Your task to perform on an android device: turn on priority inbox in the gmail app Image 0: 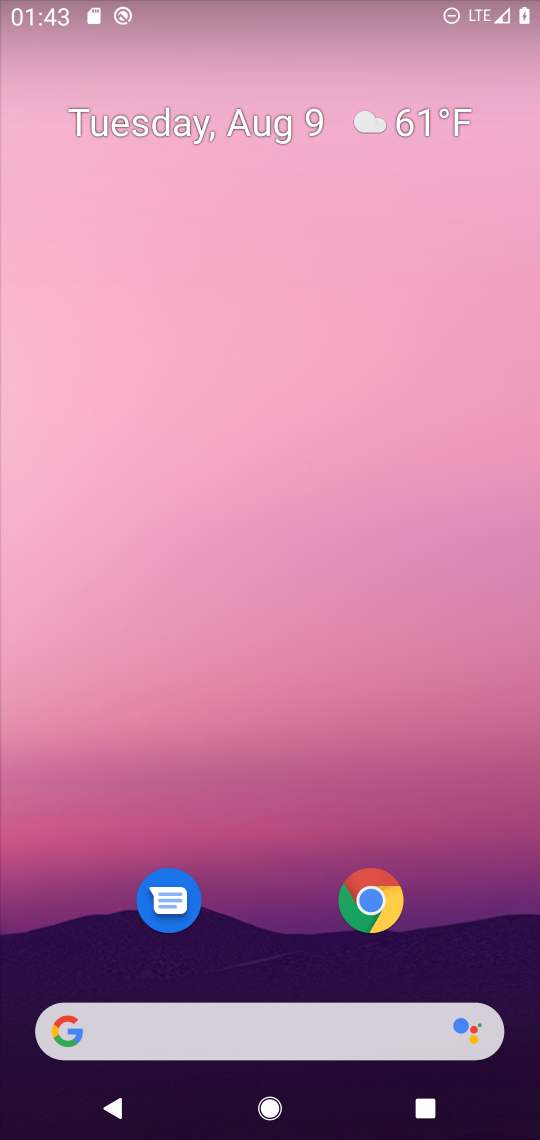
Step 0: press home button
Your task to perform on an android device: turn on priority inbox in the gmail app Image 1: 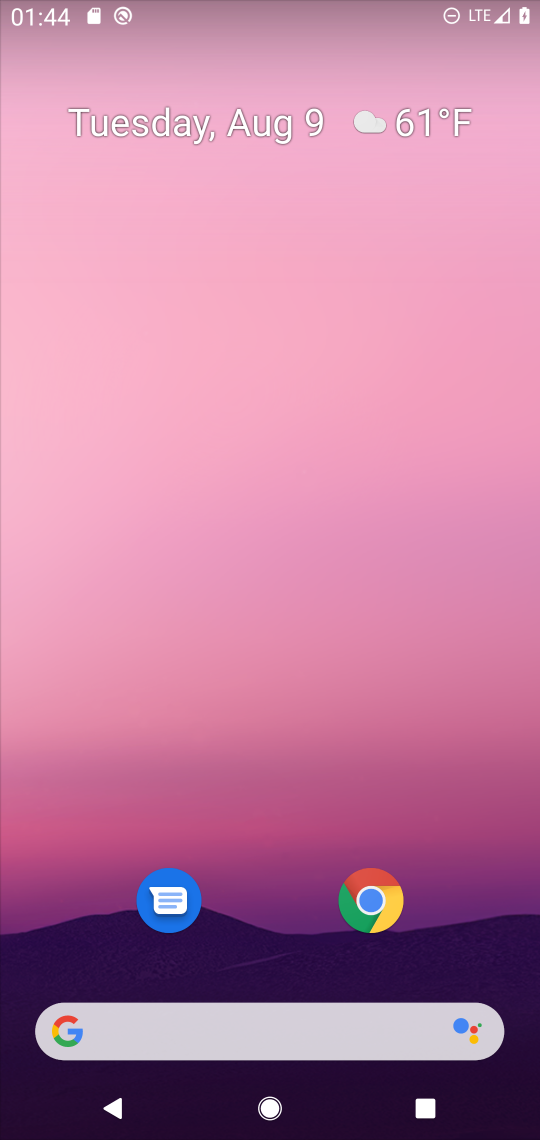
Step 1: drag from (235, 942) to (316, 117)
Your task to perform on an android device: turn on priority inbox in the gmail app Image 2: 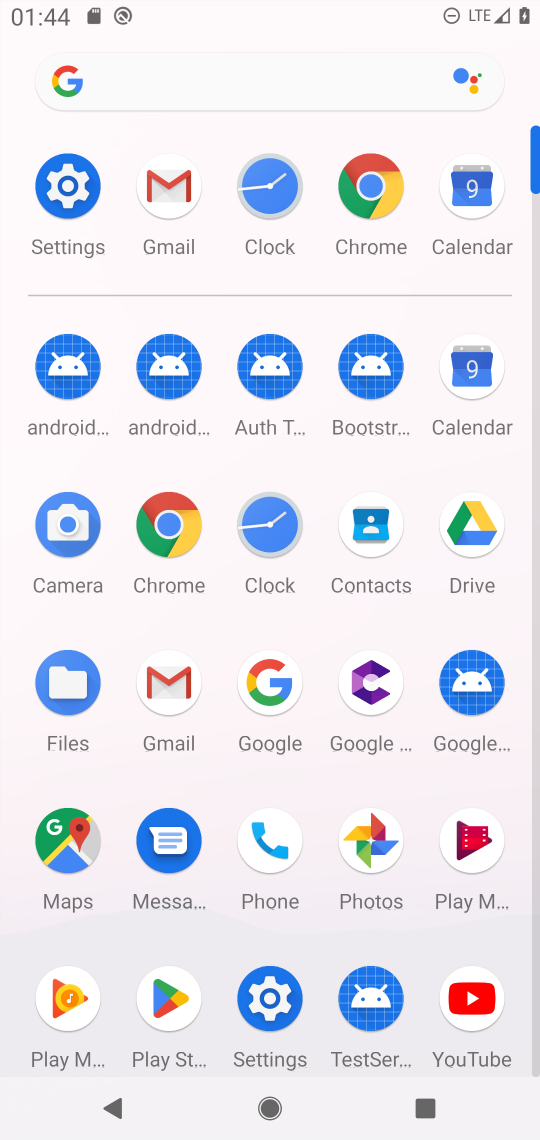
Step 2: click (59, 185)
Your task to perform on an android device: turn on priority inbox in the gmail app Image 3: 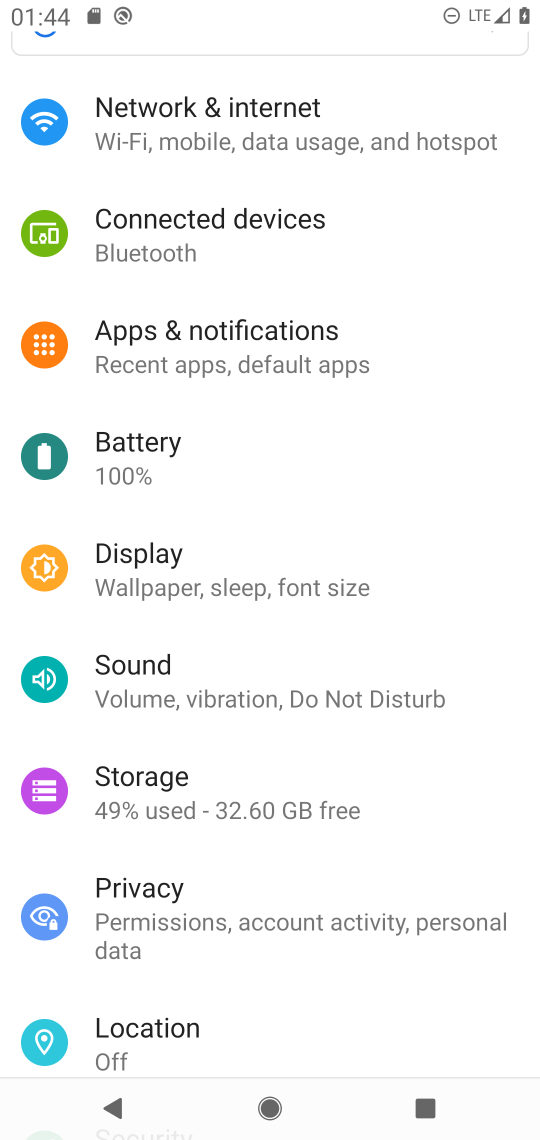
Step 3: drag from (461, 245) to (453, 481)
Your task to perform on an android device: turn on priority inbox in the gmail app Image 4: 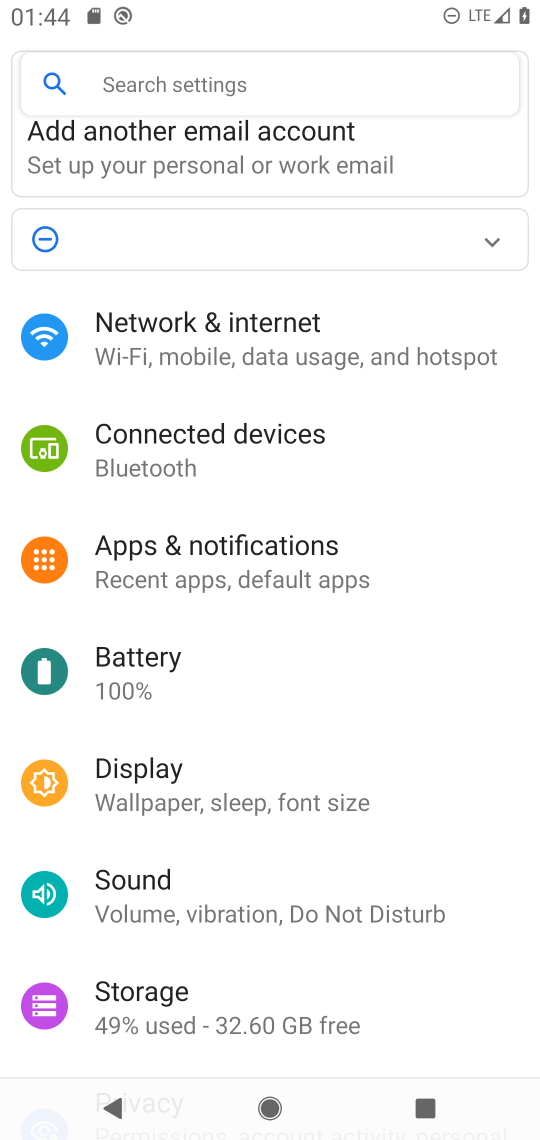
Step 4: drag from (410, 818) to (449, 442)
Your task to perform on an android device: turn on priority inbox in the gmail app Image 5: 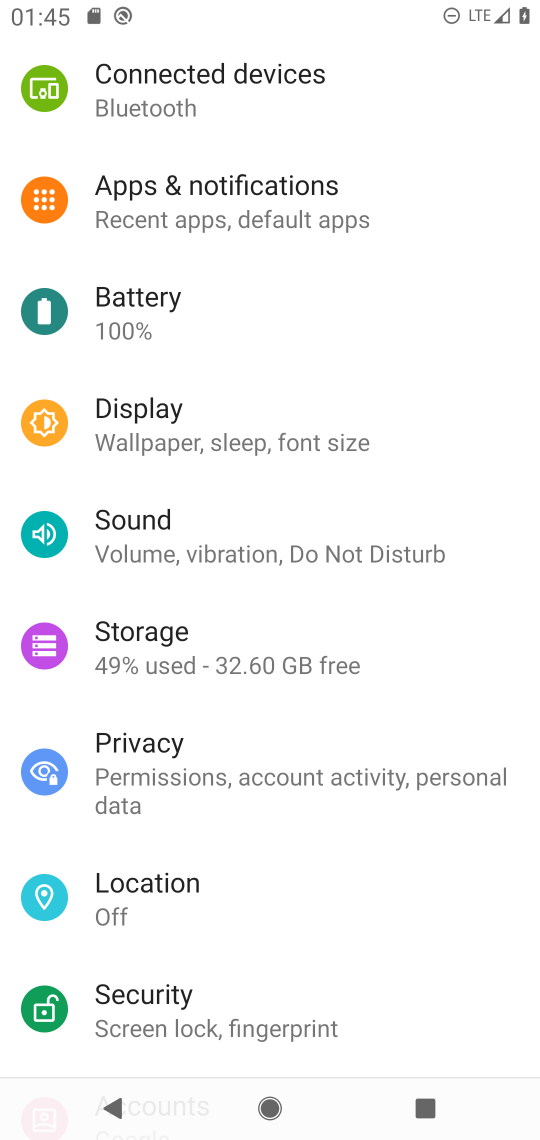
Step 5: drag from (447, 249) to (429, 613)
Your task to perform on an android device: turn on priority inbox in the gmail app Image 6: 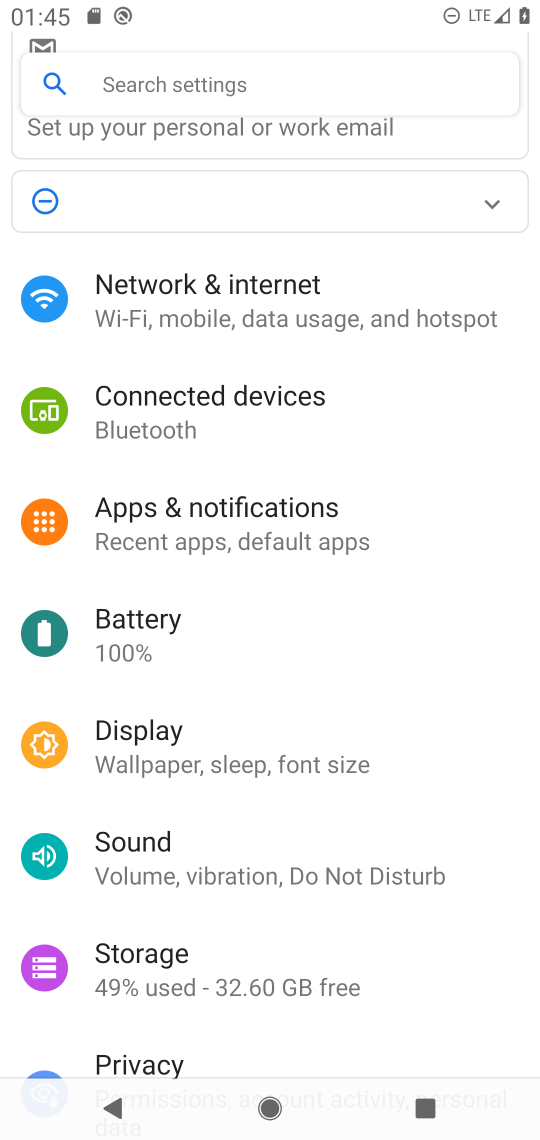
Step 6: drag from (445, 388) to (422, 641)
Your task to perform on an android device: turn on priority inbox in the gmail app Image 7: 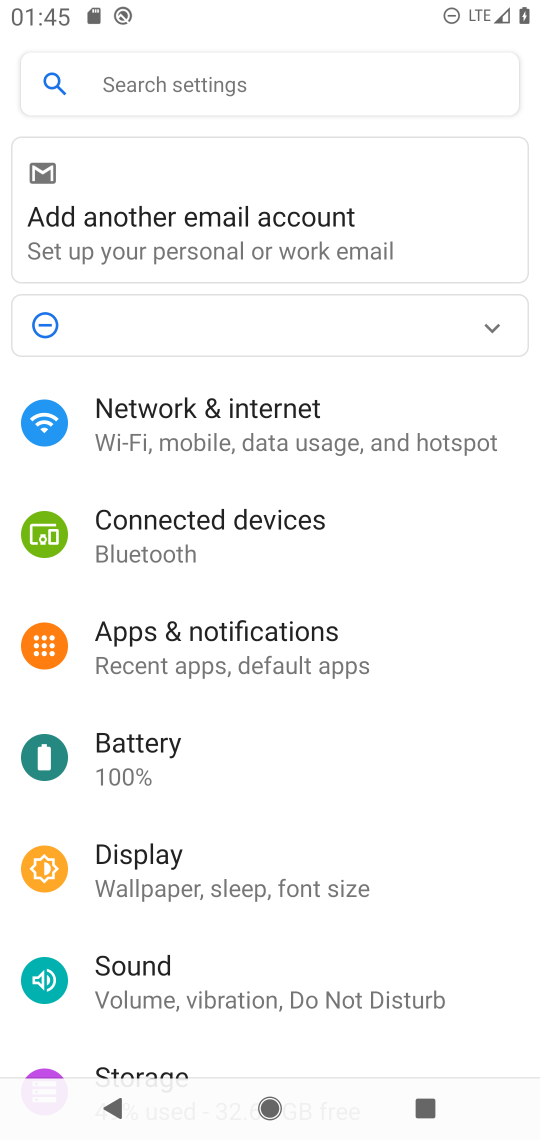
Step 7: drag from (442, 814) to (463, 600)
Your task to perform on an android device: turn on priority inbox in the gmail app Image 8: 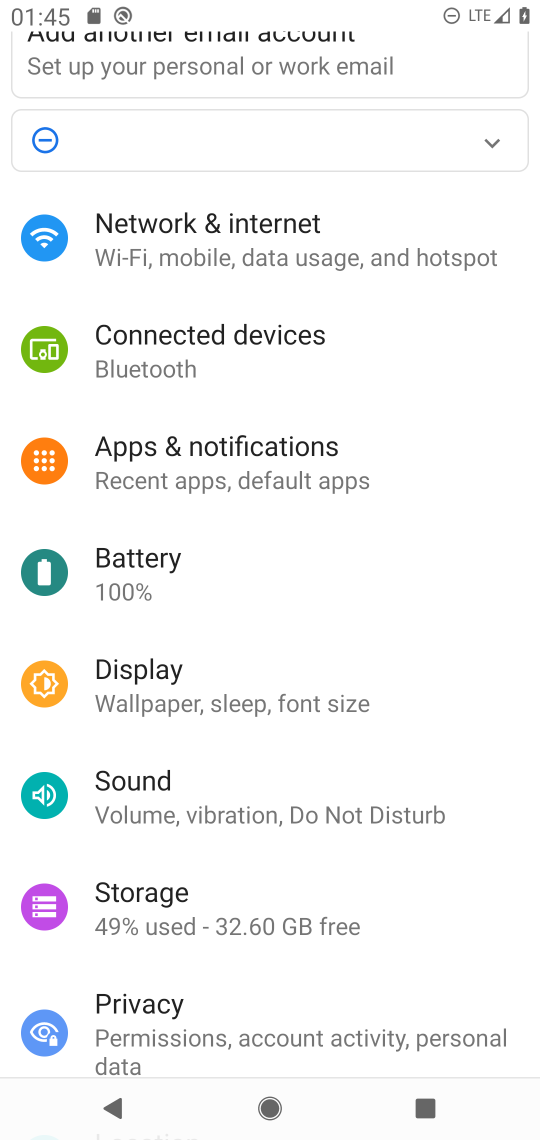
Step 8: drag from (462, 731) to (464, 637)
Your task to perform on an android device: turn on priority inbox in the gmail app Image 9: 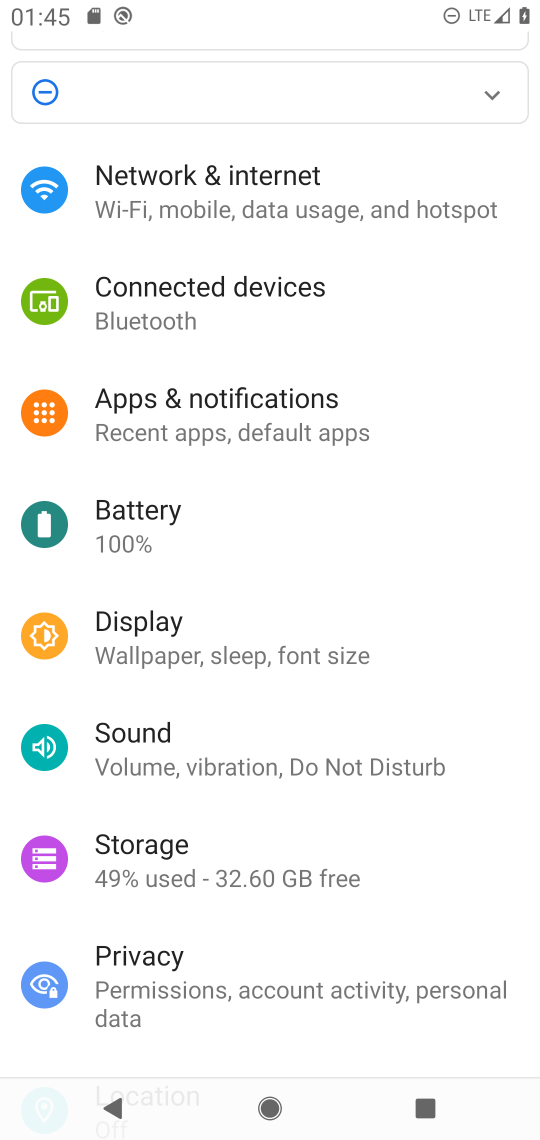
Step 9: drag from (427, 831) to (456, 426)
Your task to perform on an android device: turn on priority inbox in the gmail app Image 10: 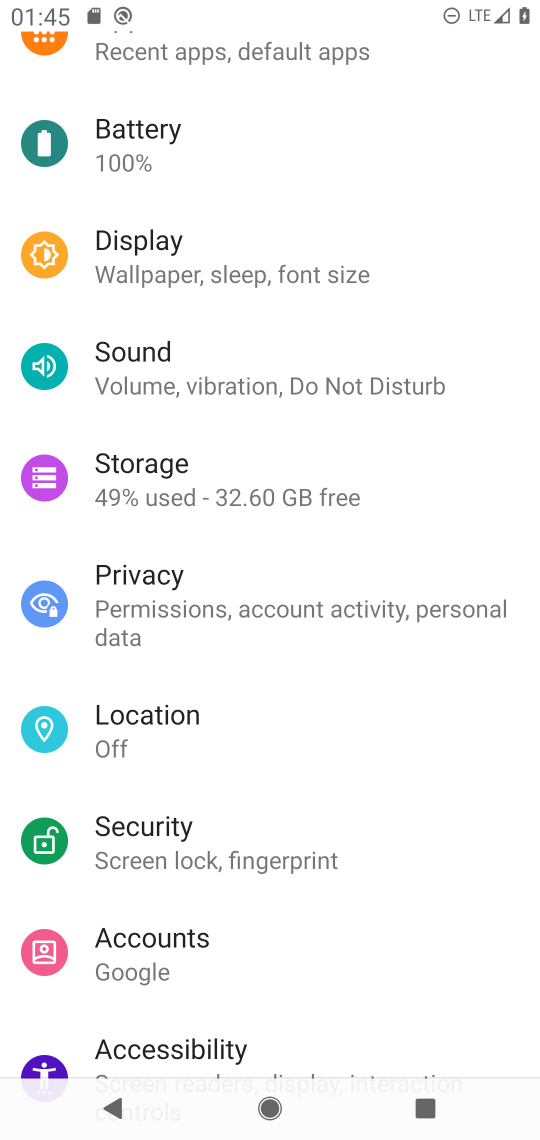
Step 10: drag from (379, 894) to (424, 490)
Your task to perform on an android device: turn on priority inbox in the gmail app Image 11: 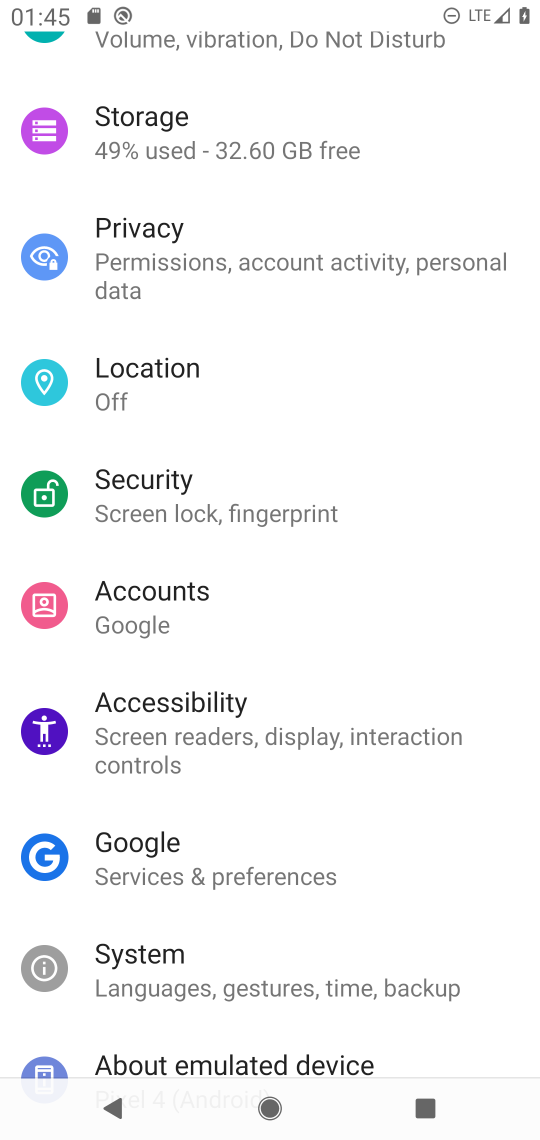
Step 11: drag from (393, 849) to (410, 579)
Your task to perform on an android device: turn on priority inbox in the gmail app Image 12: 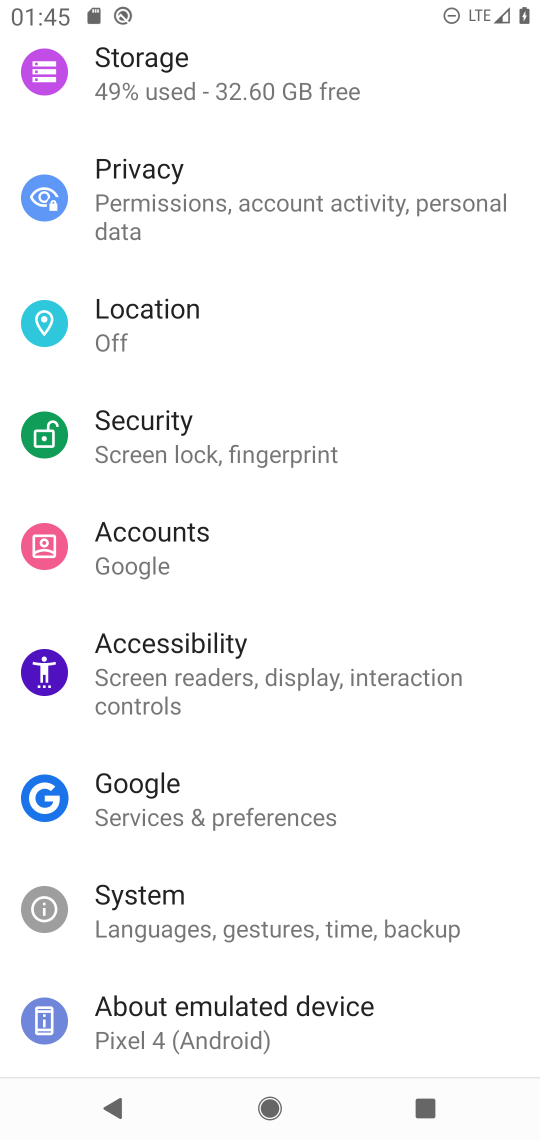
Step 12: drag from (458, 353) to (456, 652)
Your task to perform on an android device: turn on priority inbox in the gmail app Image 13: 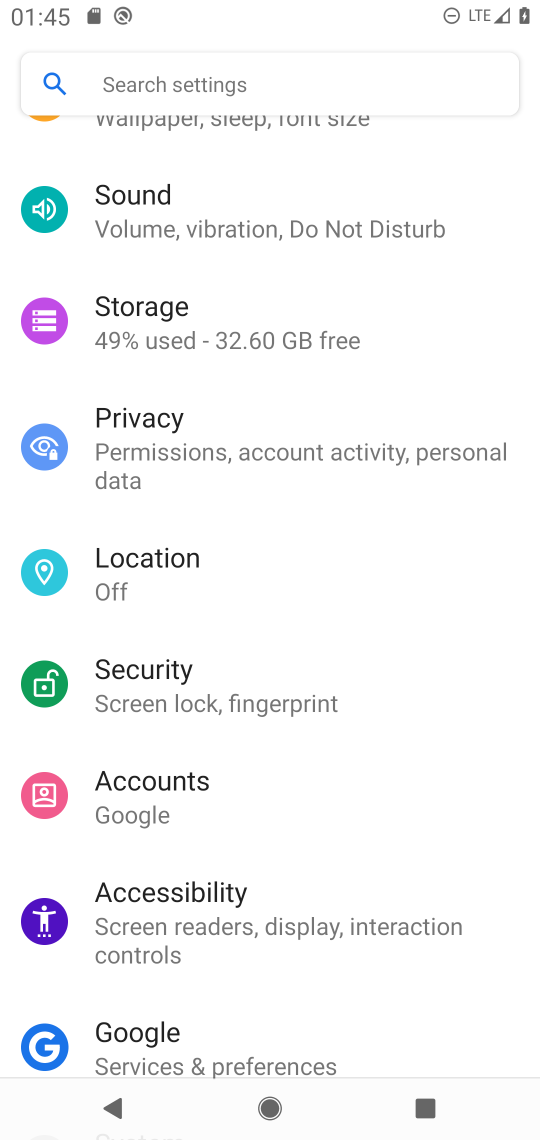
Step 13: press home button
Your task to perform on an android device: turn on priority inbox in the gmail app Image 14: 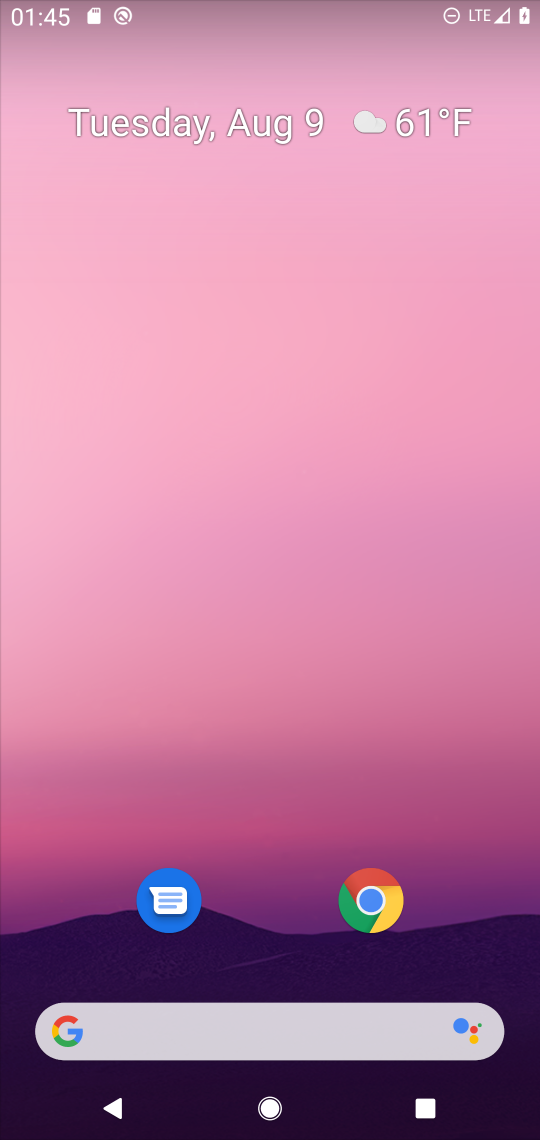
Step 14: drag from (260, 938) to (364, 224)
Your task to perform on an android device: turn on priority inbox in the gmail app Image 15: 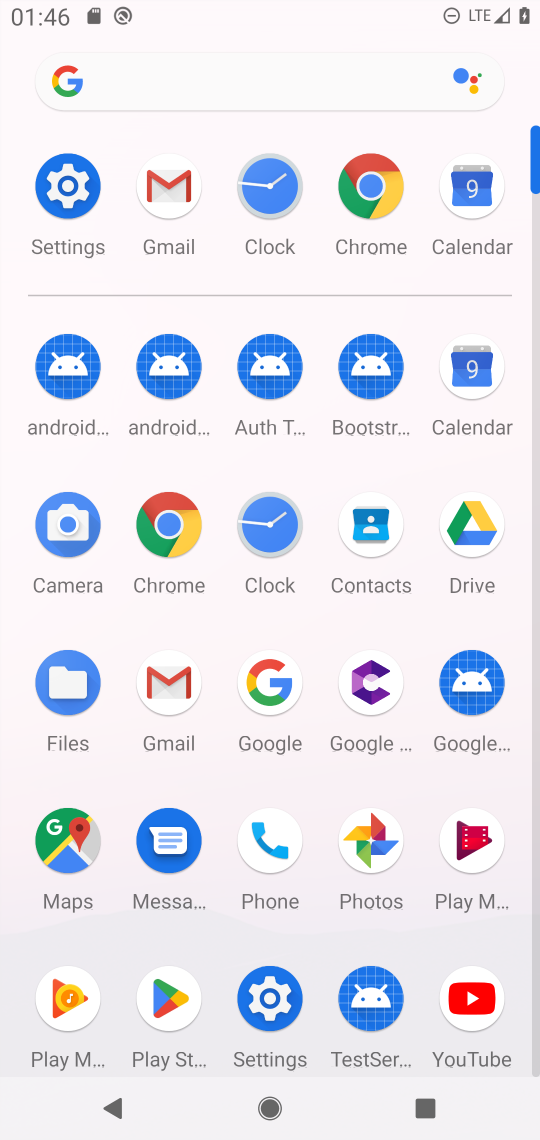
Step 15: click (160, 179)
Your task to perform on an android device: turn on priority inbox in the gmail app Image 16: 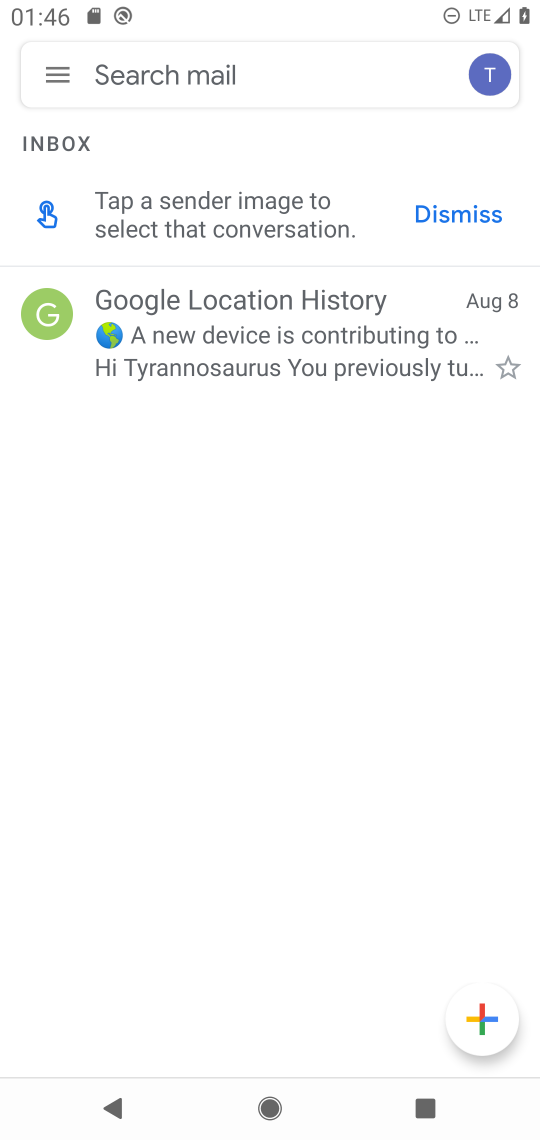
Step 16: click (55, 75)
Your task to perform on an android device: turn on priority inbox in the gmail app Image 17: 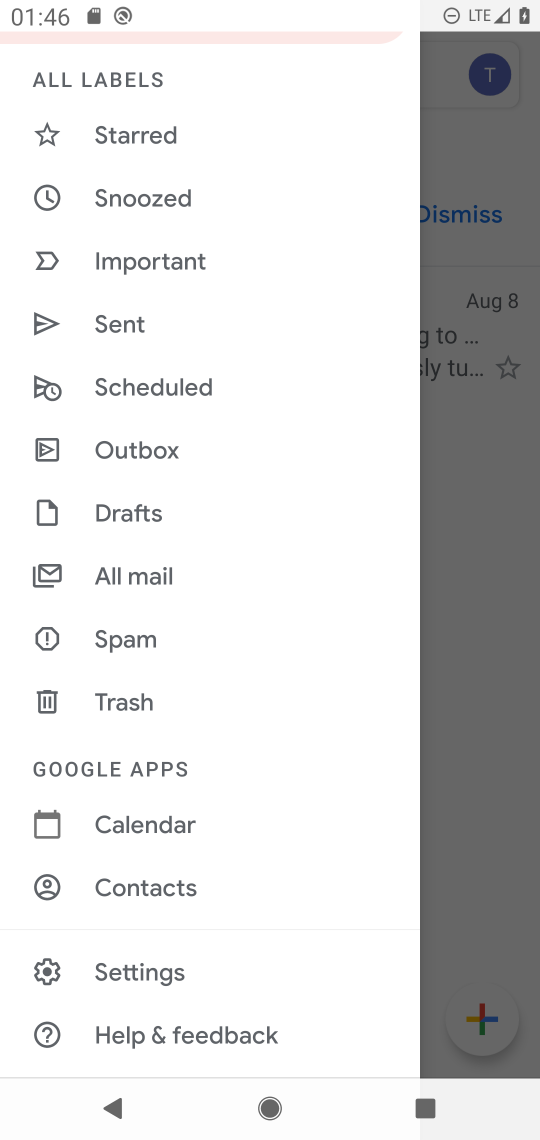
Step 17: click (190, 984)
Your task to perform on an android device: turn on priority inbox in the gmail app Image 18: 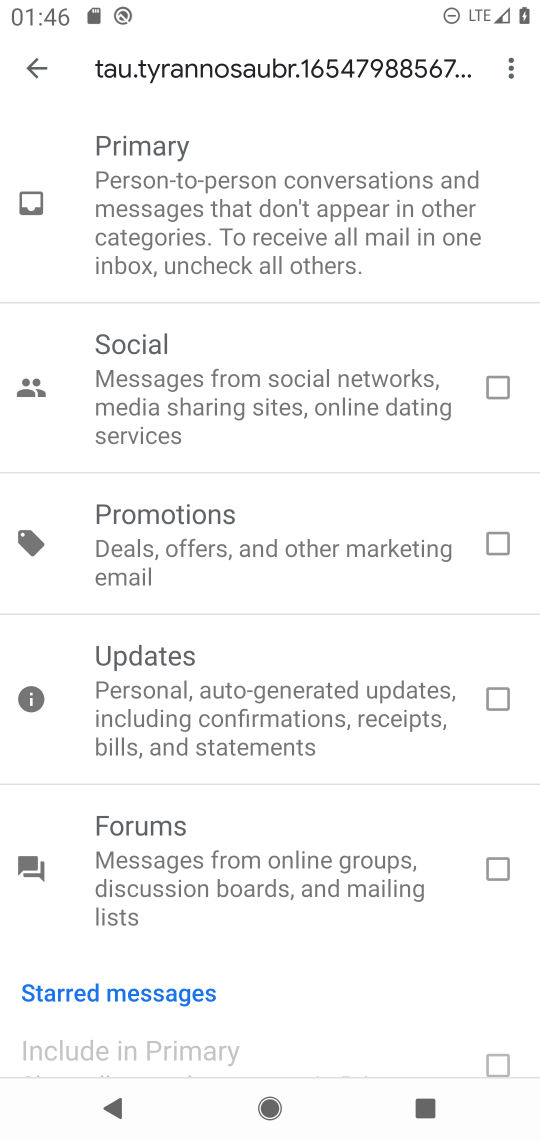
Step 18: press back button
Your task to perform on an android device: turn on priority inbox in the gmail app Image 19: 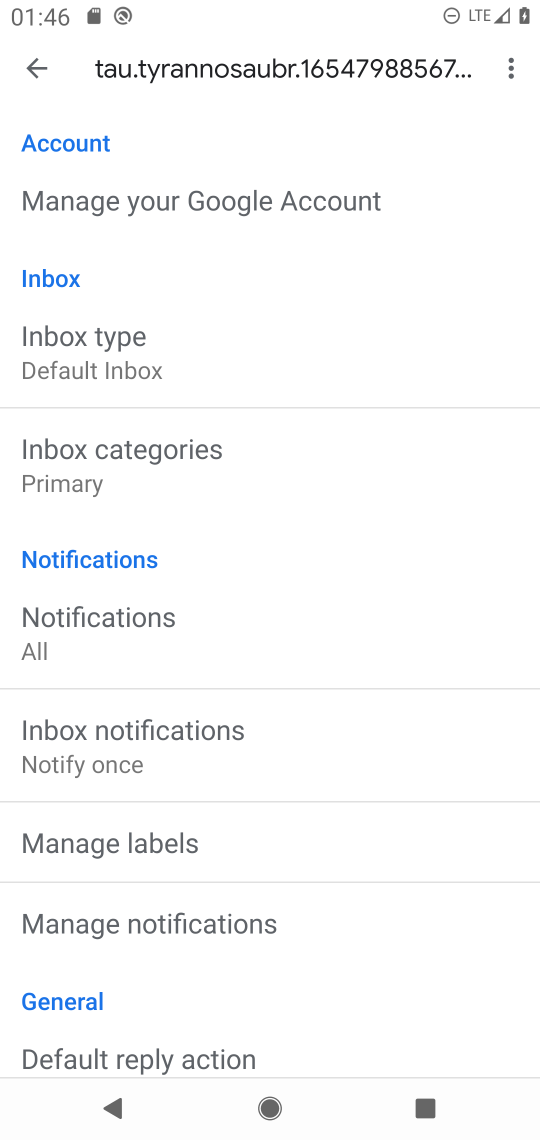
Step 19: click (75, 363)
Your task to perform on an android device: turn on priority inbox in the gmail app Image 20: 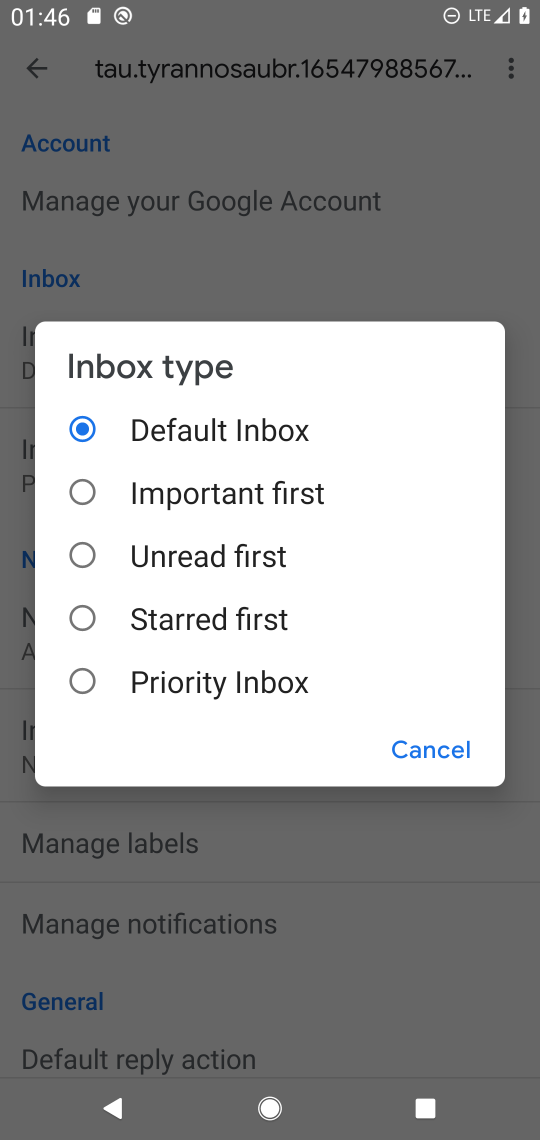
Step 20: click (144, 673)
Your task to perform on an android device: turn on priority inbox in the gmail app Image 21: 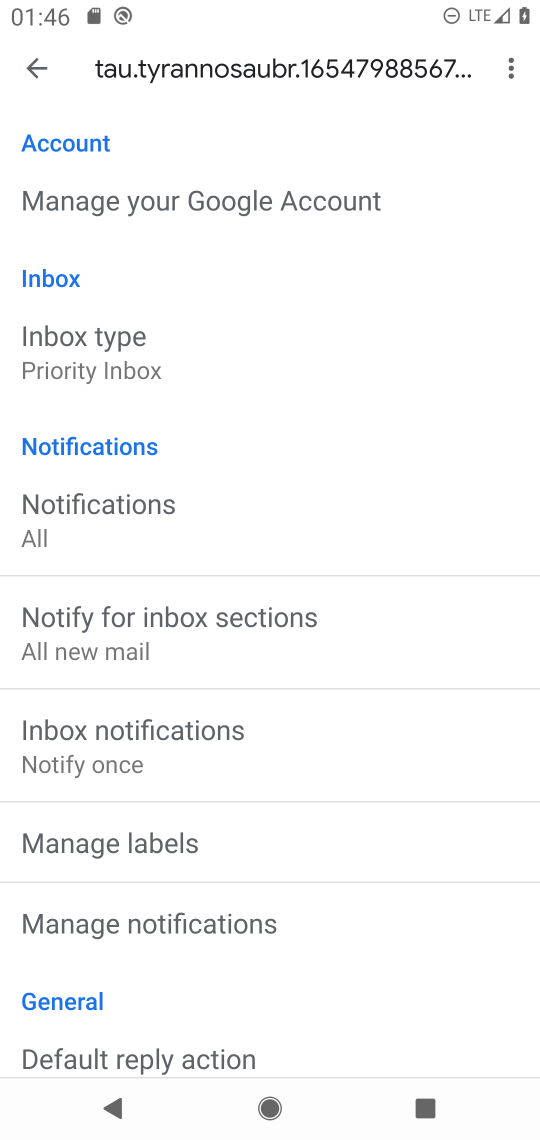
Step 21: task complete